Your task to perform on an android device: turn smart compose on in the gmail app Image 0: 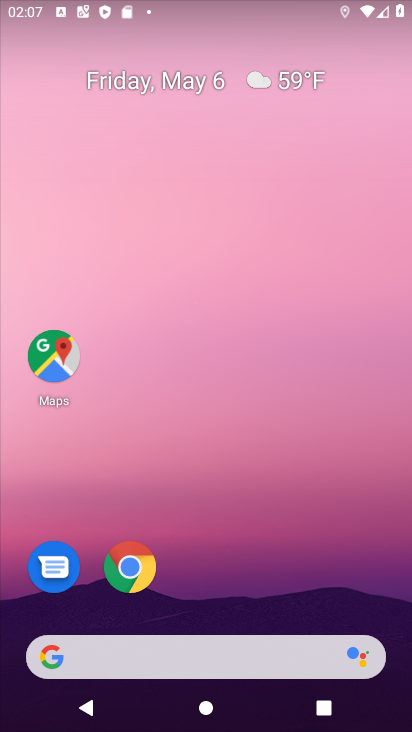
Step 0: drag from (390, 629) to (321, 78)
Your task to perform on an android device: turn smart compose on in the gmail app Image 1: 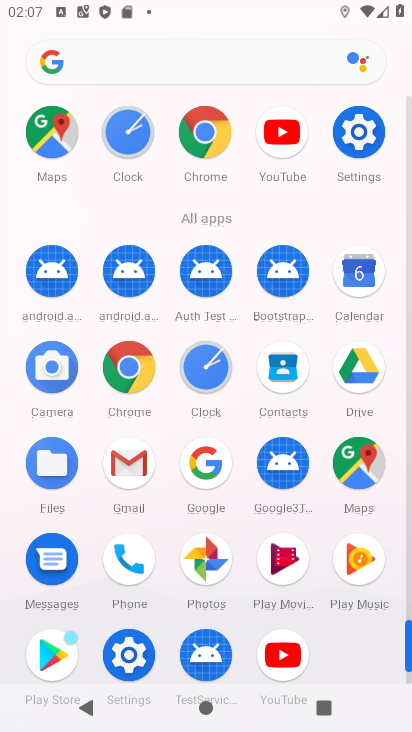
Step 1: click (124, 462)
Your task to perform on an android device: turn smart compose on in the gmail app Image 2: 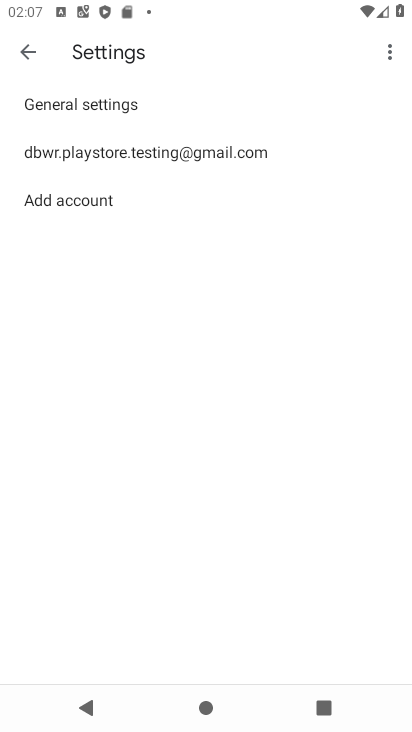
Step 2: click (127, 148)
Your task to perform on an android device: turn smart compose on in the gmail app Image 3: 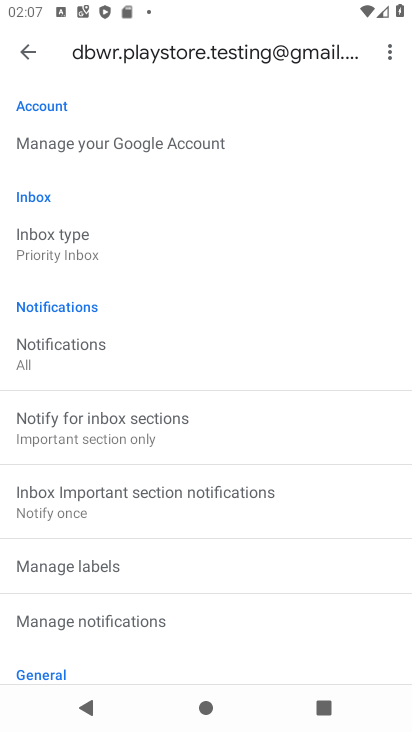
Step 3: task complete